Your task to perform on an android device: turn on location history Image 0: 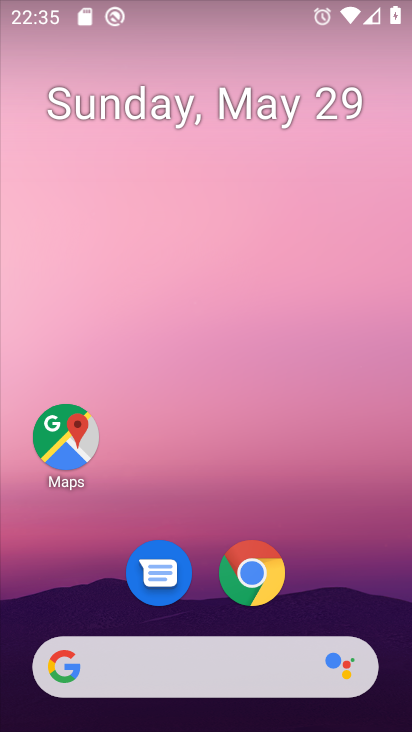
Step 0: drag from (241, 526) to (269, 1)
Your task to perform on an android device: turn on location history Image 1: 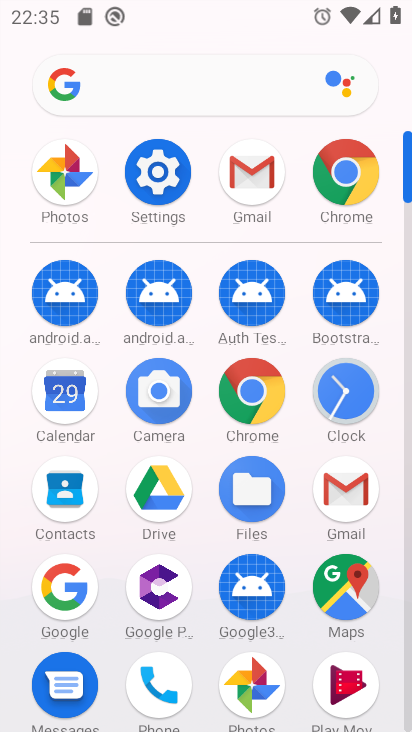
Step 1: click (167, 177)
Your task to perform on an android device: turn on location history Image 2: 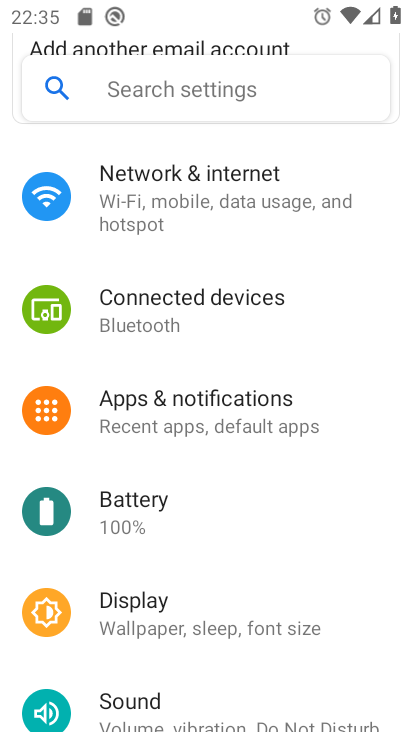
Step 2: drag from (250, 512) to (250, 78)
Your task to perform on an android device: turn on location history Image 3: 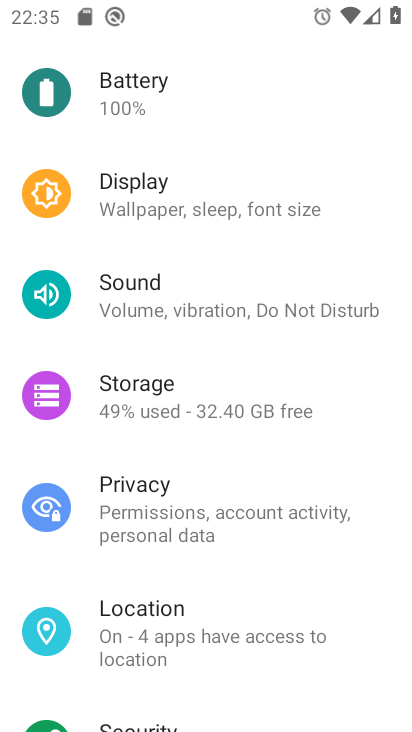
Step 3: click (212, 634)
Your task to perform on an android device: turn on location history Image 4: 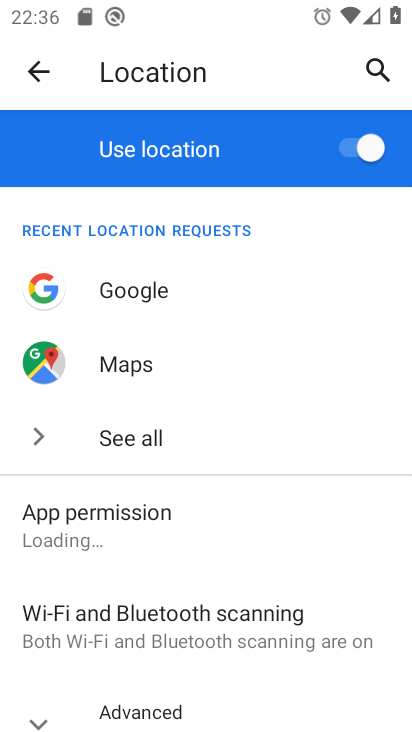
Step 4: drag from (267, 570) to (270, 320)
Your task to perform on an android device: turn on location history Image 5: 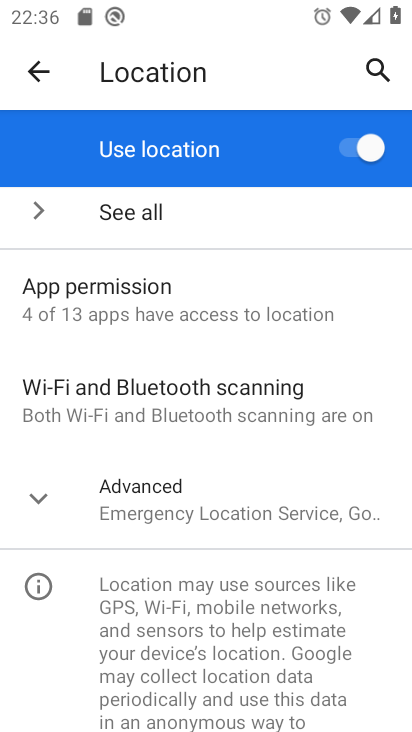
Step 5: click (39, 490)
Your task to perform on an android device: turn on location history Image 6: 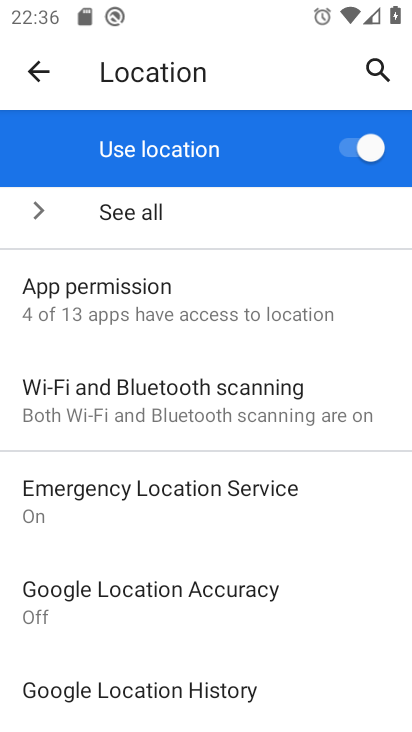
Step 6: drag from (226, 646) to (242, 369)
Your task to perform on an android device: turn on location history Image 7: 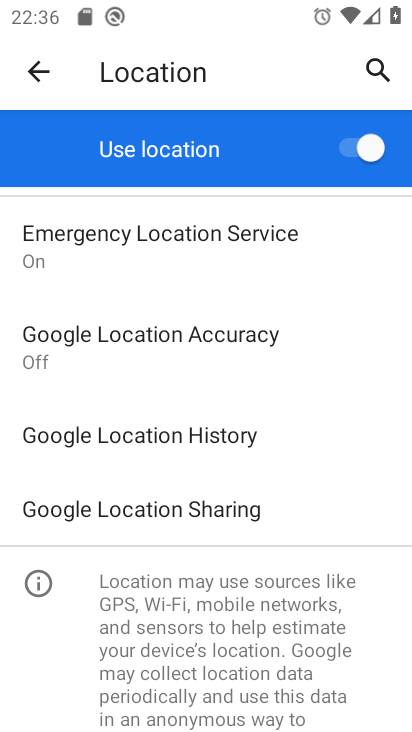
Step 7: click (249, 430)
Your task to perform on an android device: turn on location history Image 8: 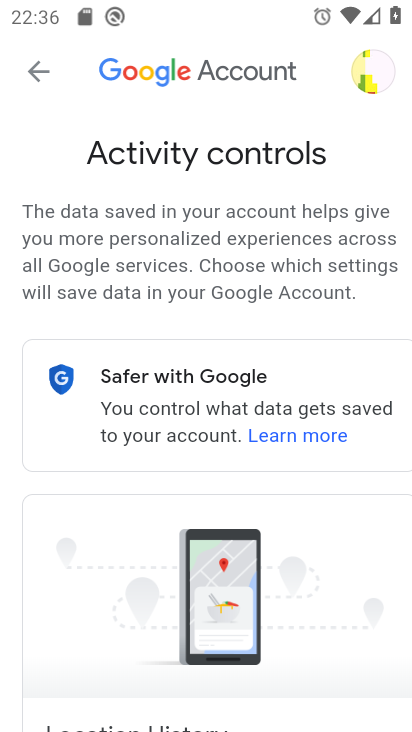
Step 8: task complete